Your task to perform on an android device: check google app version Image 0: 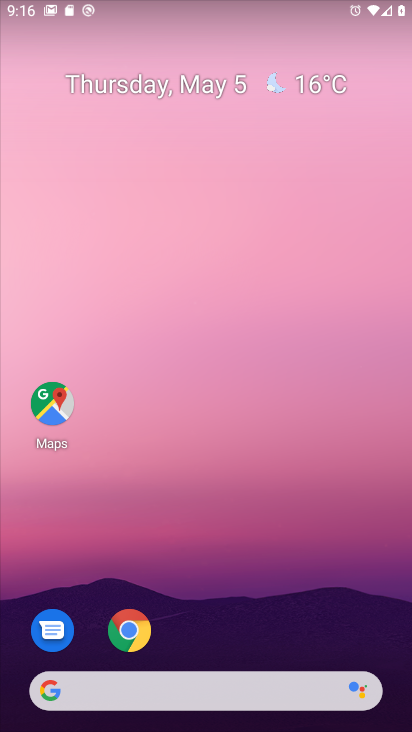
Step 0: drag from (337, 504) to (321, 29)
Your task to perform on an android device: check google app version Image 1: 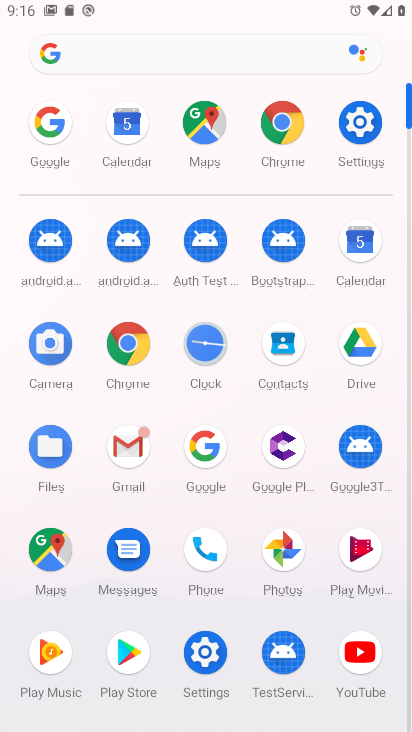
Step 1: click (203, 444)
Your task to perform on an android device: check google app version Image 2: 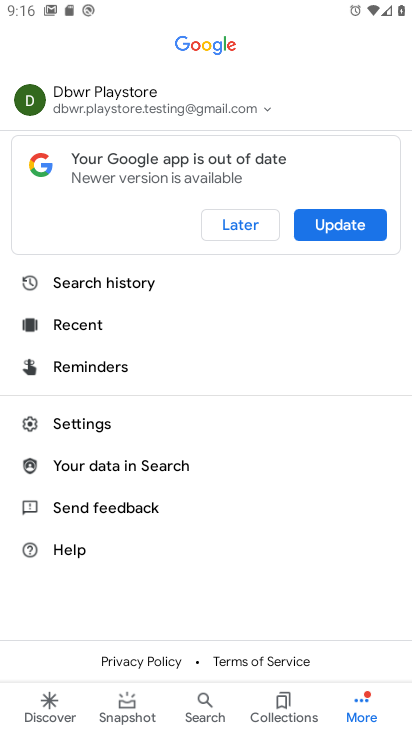
Step 2: click (61, 422)
Your task to perform on an android device: check google app version Image 3: 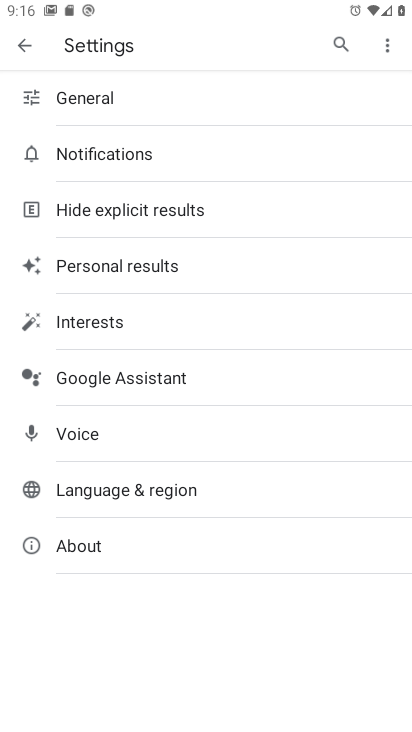
Step 3: click (101, 542)
Your task to perform on an android device: check google app version Image 4: 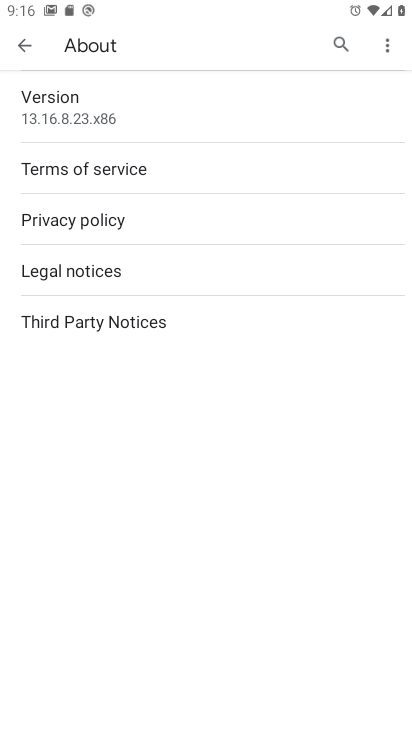
Step 4: click (76, 105)
Your task to perform on an android device: check google app version Image 5: 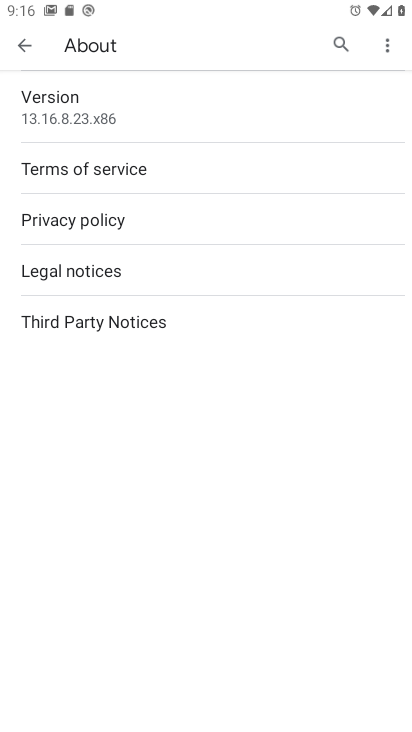
Step 5: click (76, 104)
Your task to perform on an android device: check google app version Image 6: 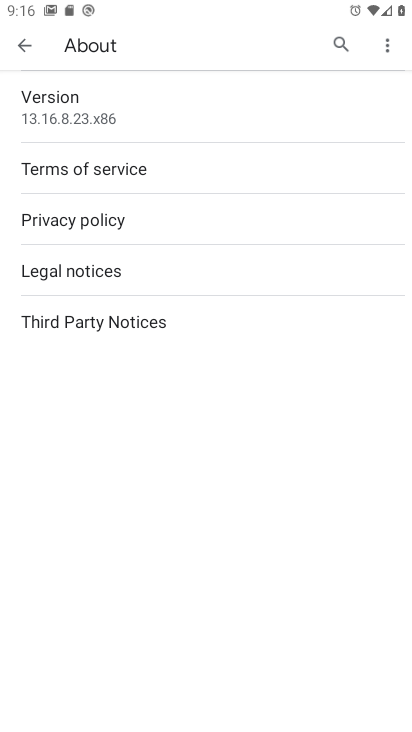
Step 6: task complete